Your task to perform on an android device: Go to battery settings Image 0: 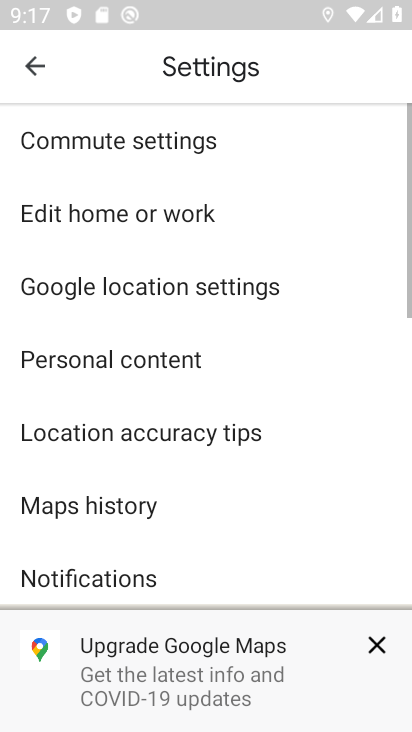
Step 0: press home button
Your task to perform on an android device: Go to battery settings Image 1: 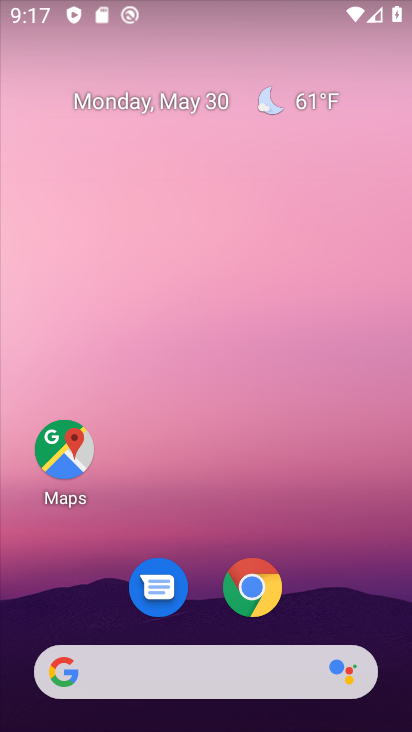
Step 1: drag from (242, 629) to (237, 65)
Your task to perform on an android device: Go to battery settings Image 2: 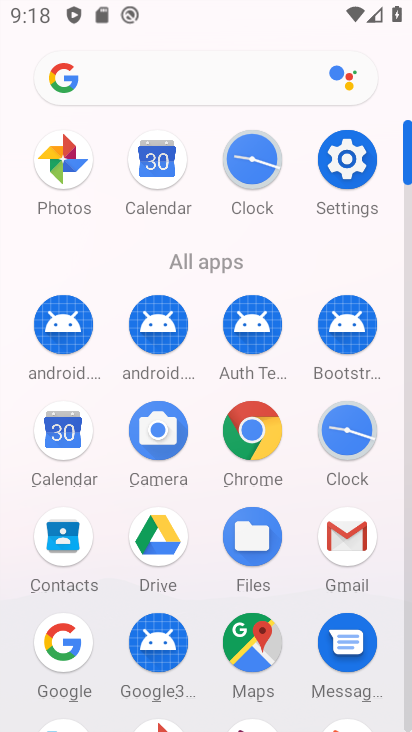
Step 2: click (352, 151)
Your task to perform on an android device: Go to battery settings Image 3: 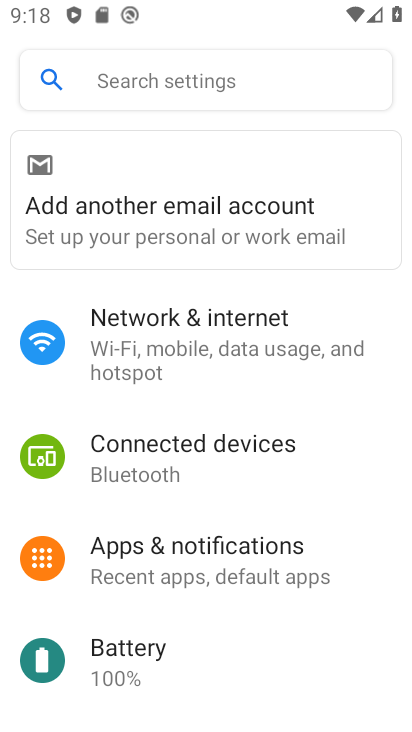
Step 3: click (158, 654)
Your task to perform on an android device: Go to battery settings Image 4: 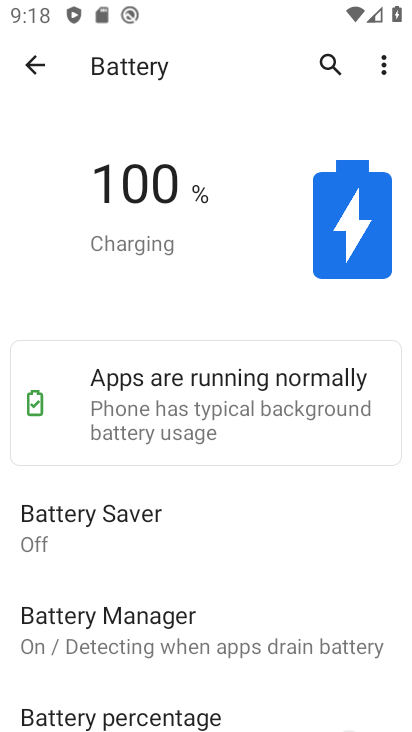
Step 4: task complete